Your task to perform on an android device: Go to Reddit.com Image 0: 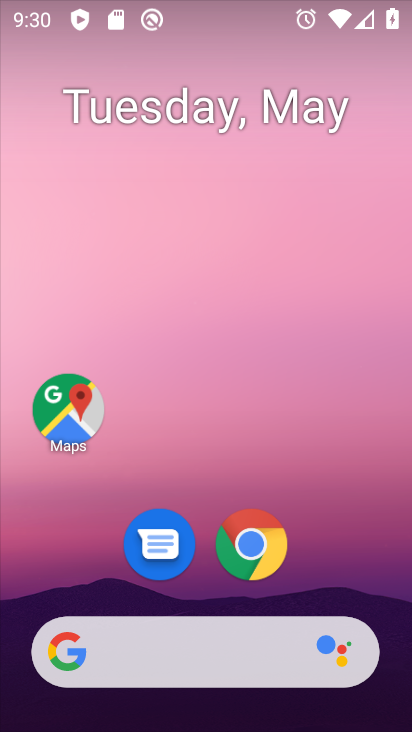
Step 0: drag from (329, 565) to (329, 195)
Your task to perform on an android device: Go to Reddit.com Image 1: 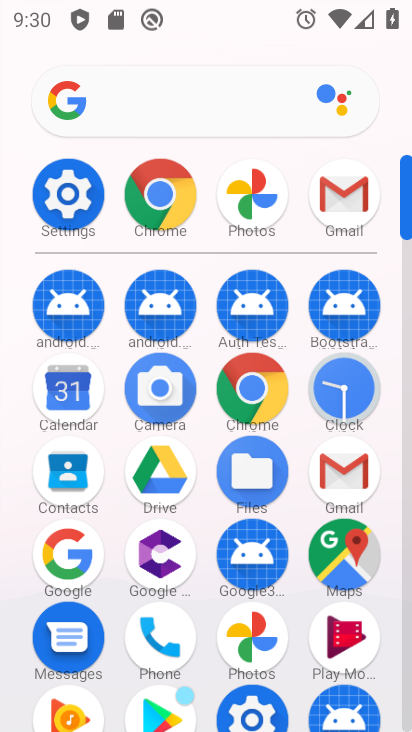
Step 1: click (150, 178)
Your task to perform on an android device: Go to Reddit.com Image 2: 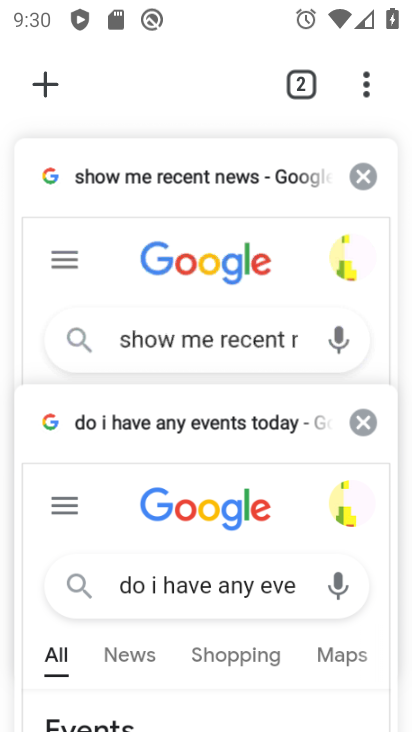
Step 2: click (51, 86)
Your task to perform on an android device: Go to Reddit.com Image 3: 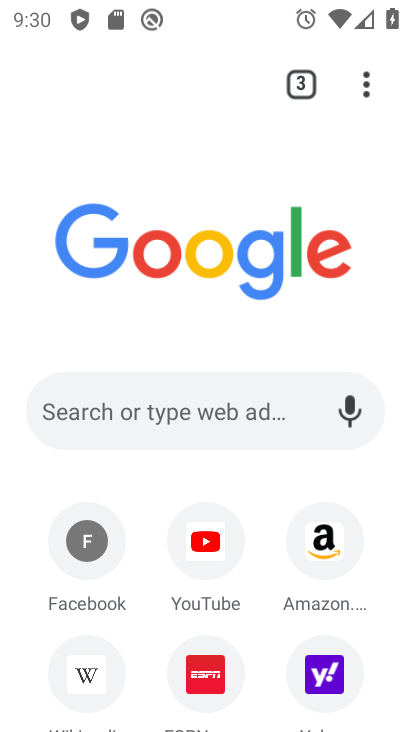
Step 3: click (231, 419)
Your task to perform on an android device: Go to Reddit.com Image 4: 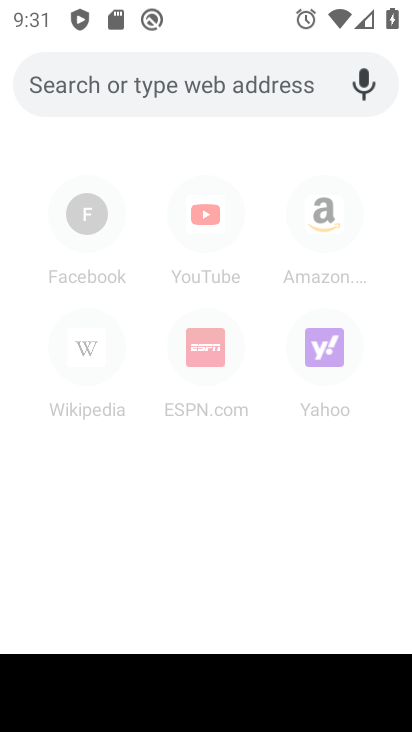
Step 4: type "reddit.com"
Your task to perform on an android device: Go to Reddit.com Image 5: 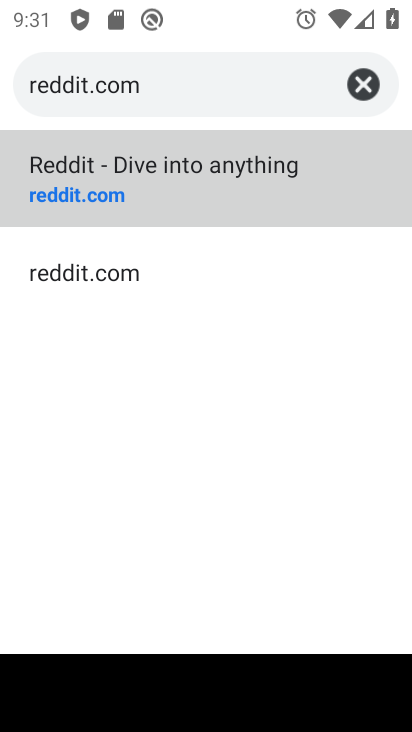
Step 5: click (131, 156)
Your task to perform on an android device: Go to Reddit.com Image 6: 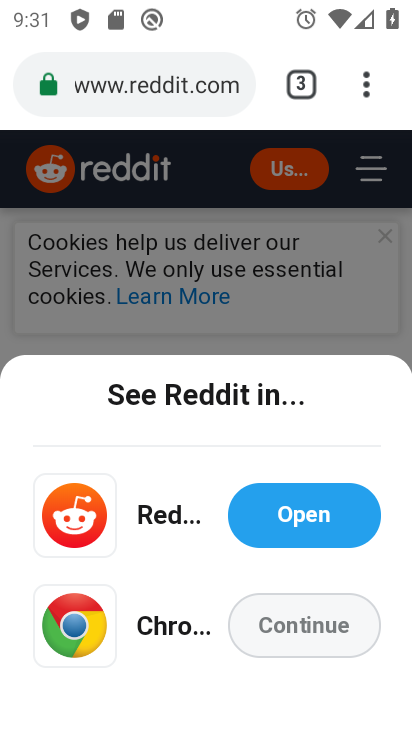
Step 6: task complete